Your task to perform on an android device: Play the last video I watched on Youtube Image 0: 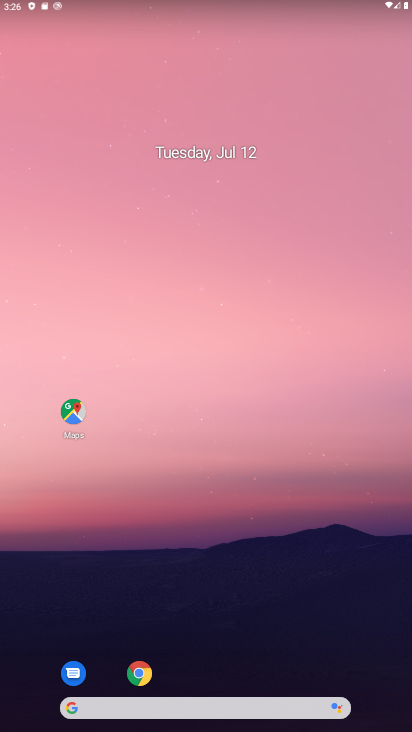
Step 0: drag from (207, 709) to (281, 93)
Your task to perform on an android device: Play the last video I watched on Youtube Image 1: 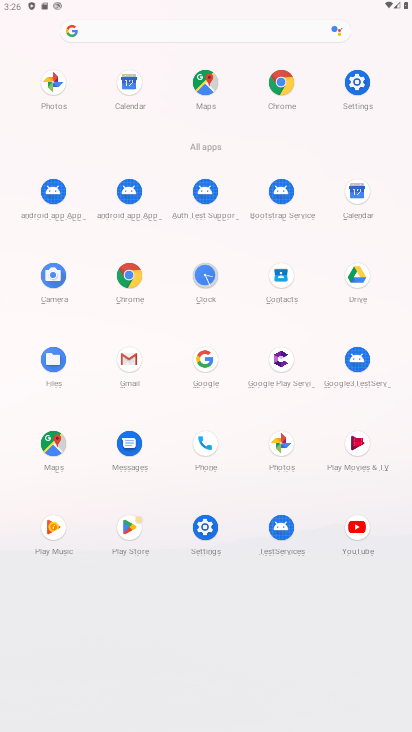
Step 1: click (356, 528)
Your task to perform on an android device: Play the last video I watched on Youtube Image 2: 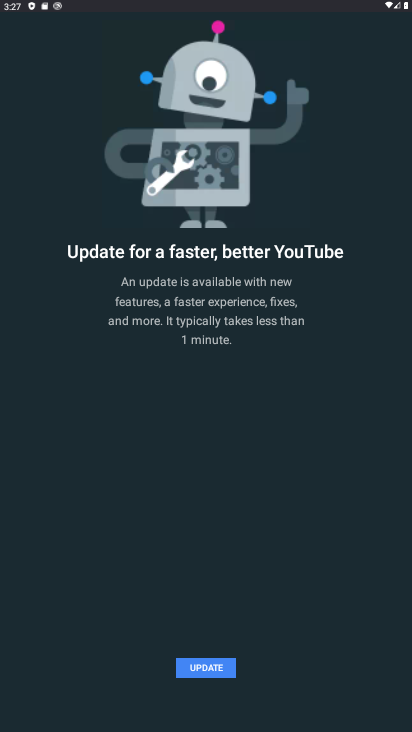
Step 2: click (210, 668)
Your task to perform on an android device: Play the last video I watched on Youtube Image 3: 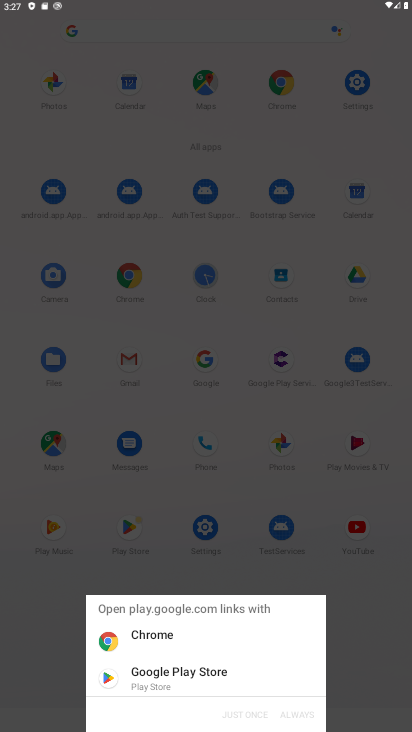
Step 3: click (211, 668)
Your task to perform on an android device: Play the last video I watched on Youtube Image 4: 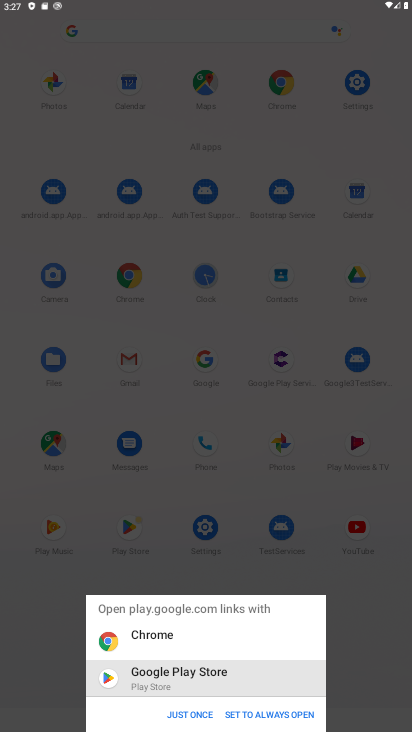
Step 4: click (191, 713)
Your task to perform on an android device: Play the last video I watched on Youtube Image 5: 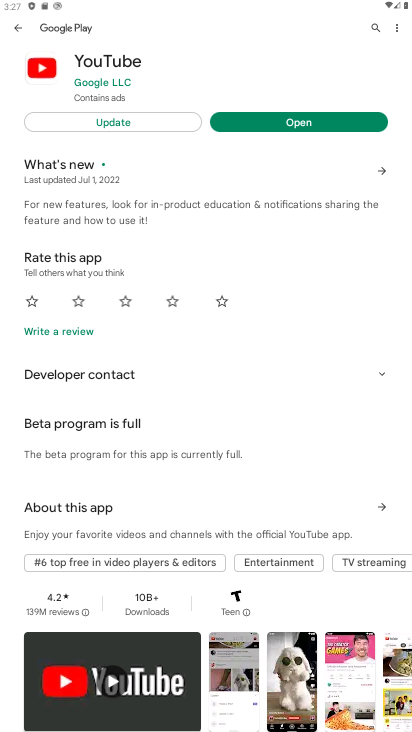
Step 5: click (143, 121)
Your task to perform on an android device: Play the last video I watched on Youtube Image 6: 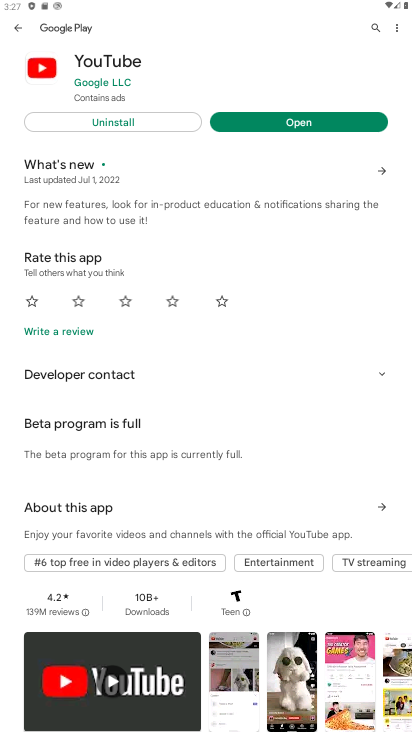
Step 6: click (304, 119)
Your task to perform on an android device: Play the last video I watched on Youtube Image 7: 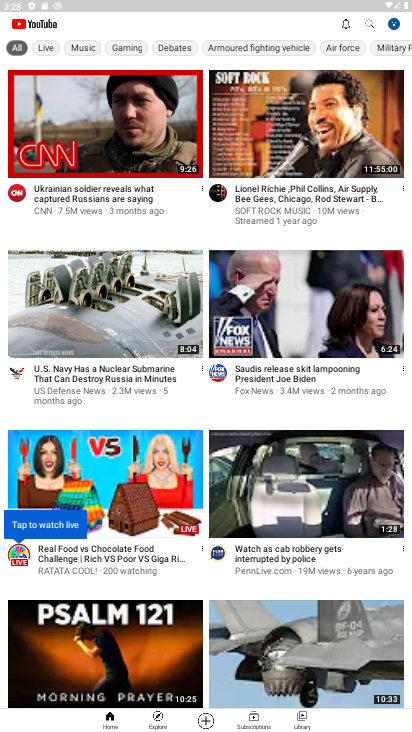
Step 7: click (304, 718)
Your task to perform on an android device: Play the last video I watched on Youtube Image 8: 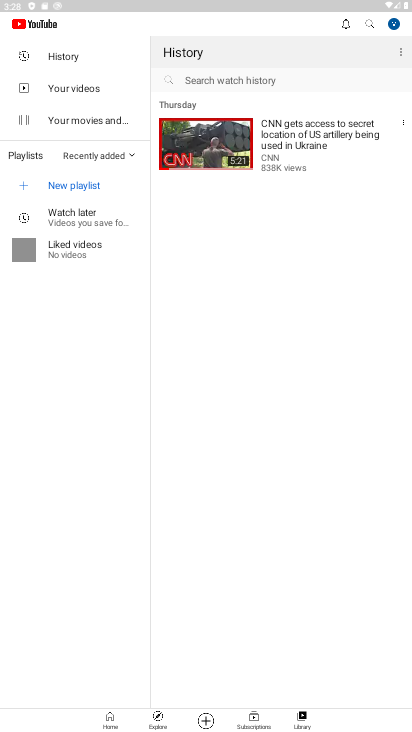
Step 8: click (326, 140)
Your task to perform on an android device: Play the last video I watched on Youtube Image 9: 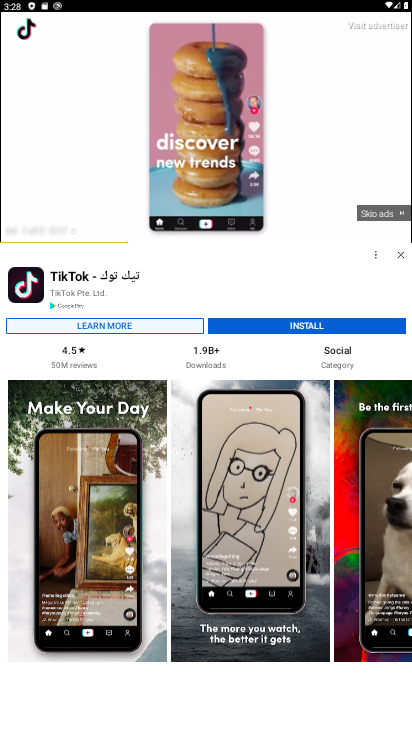
Step 9: click (375, 214)
Your task to perform on an android device: Play the last video I watched on Youtube Image 10: 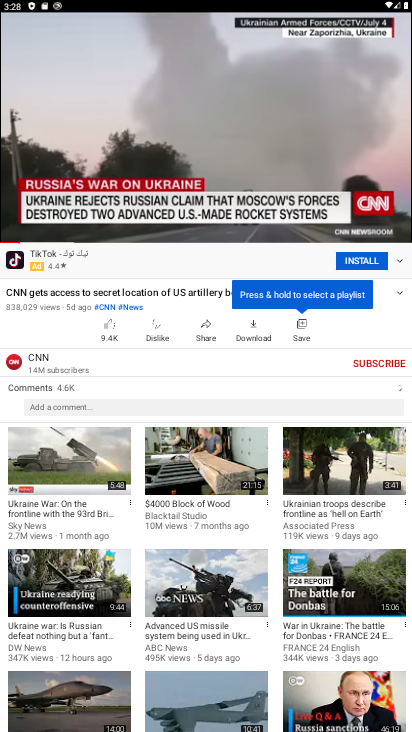
Step 10: click (235, 124)
Your task to perform on an android device: Play the last video I watched on Youtube Image 11: 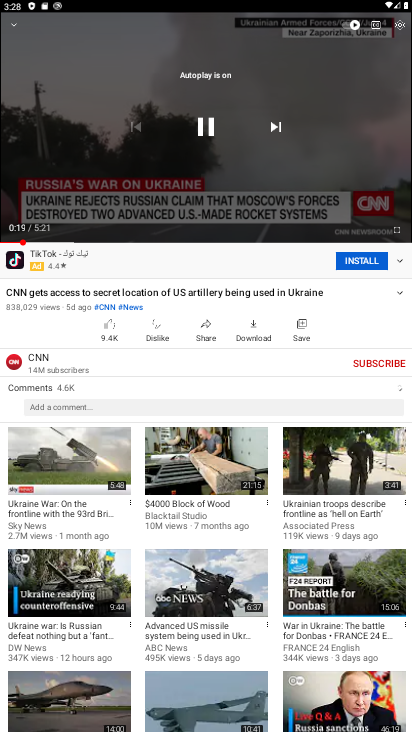
Step 11: click (213, 133)
Your task to perform on an android device: Play the last video I watched on Youtube Image 12: 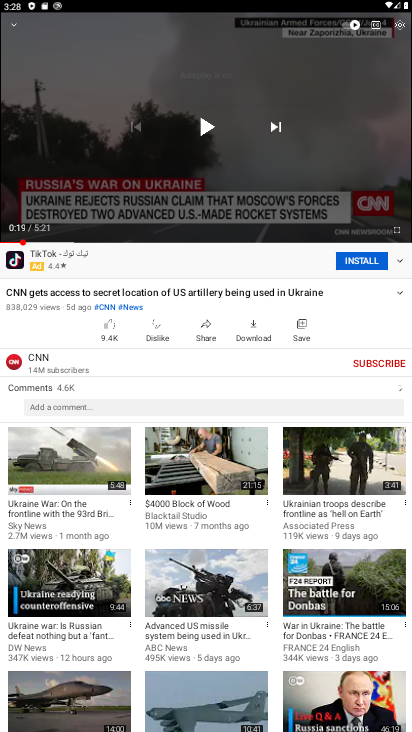
Step 12: task complete